Your task to perform on an android device: What's on my calendar tomorrow? Image 0: 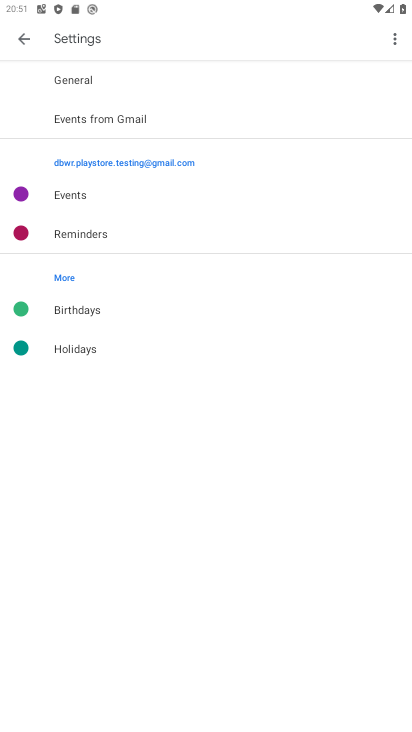
Step 0: press back button
Your task to perform on an android device: What's on my calendar tomorrow? Image 1: 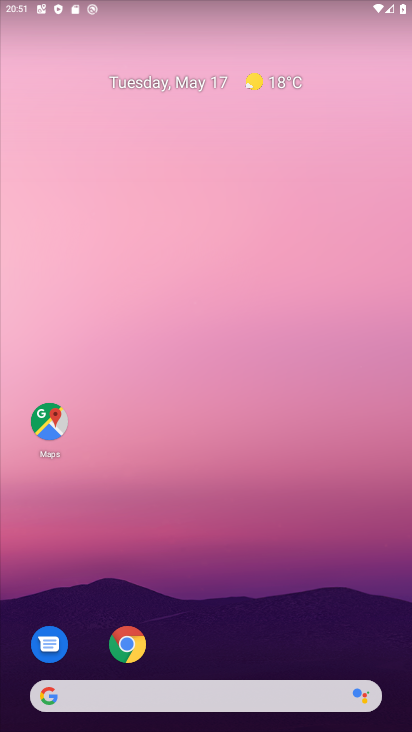
Step 1: drag from (203, 639) to (315, 24)
Your task to perform on an android device: What's on my calendar tomorrow? Image 2: 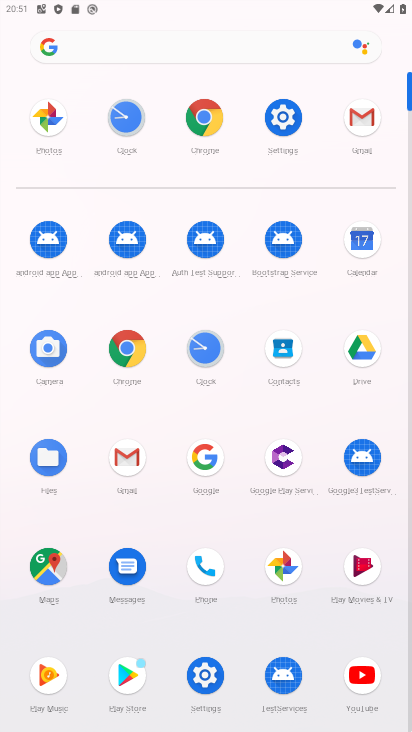
Step 2: click (368, 236)
Your task to perform on an android device: What's on my calendar tomorrow? Image 3: 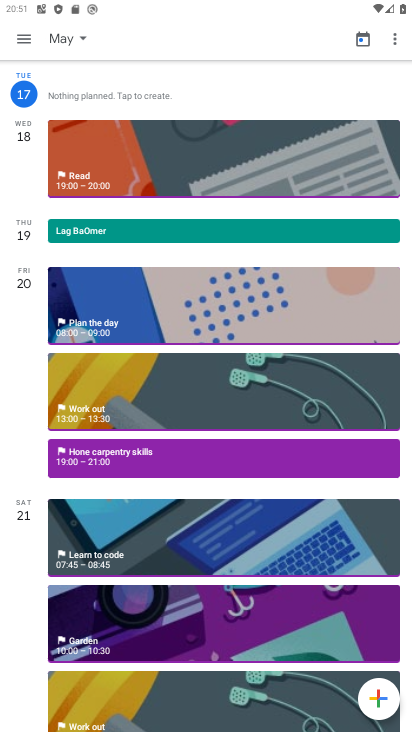
Step 3: click (97, 234)
Your task to perform on an android device: What's on my calendar tomorrow? Image 4: 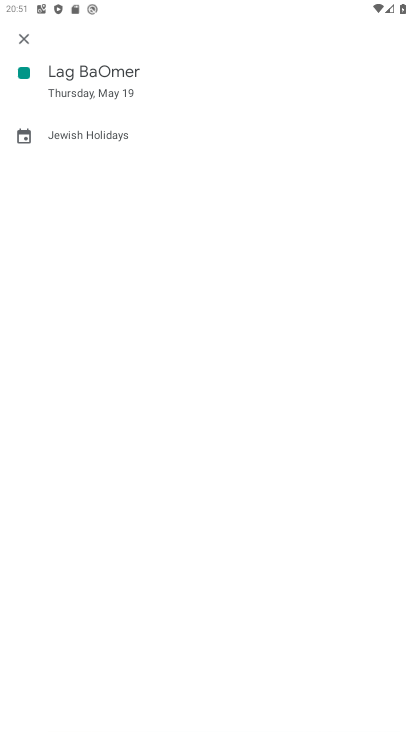
Step 4: task complete